Your task to perform on an android device: Open calendar and show me the second week of next month Image 0: 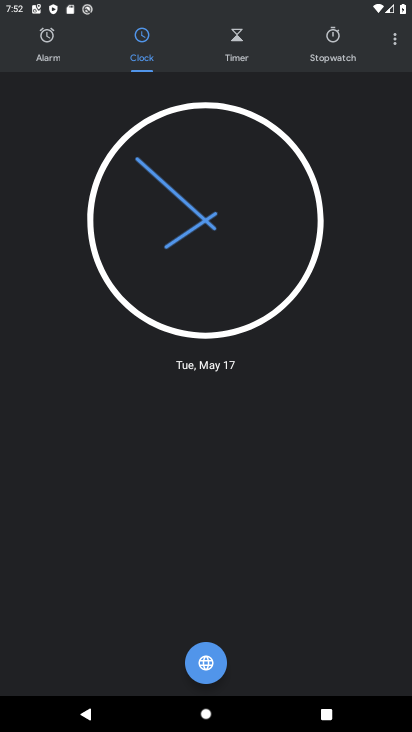
Step 0: press home button
Your task to perform on an android device: Open calendar and show me the second week of next month Image 1: 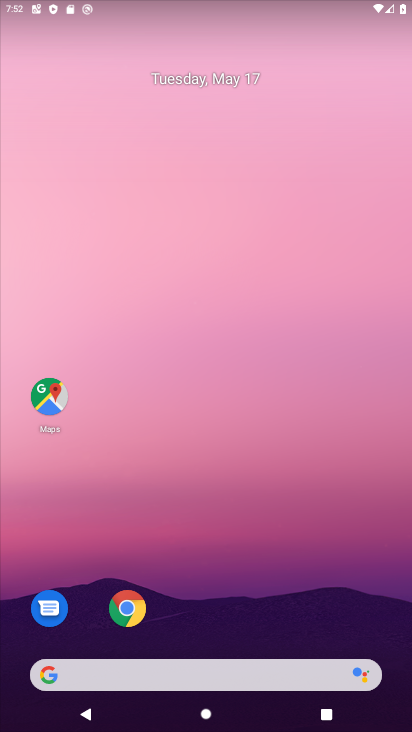
Step 1: click (200, 75)
Your task to perform on an android device: Open calendar and show me the second week of next month Image 2: 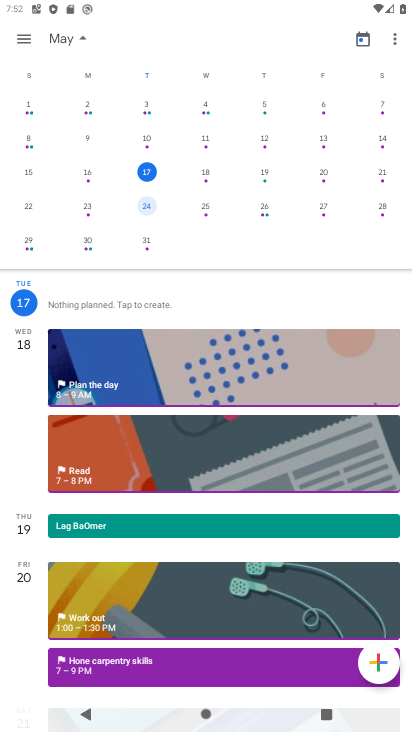
Step 2: drag from (388, 258) to (7, 216)
Your task to perform on an android device: Open calendar and show me the second week of next month Image 3: 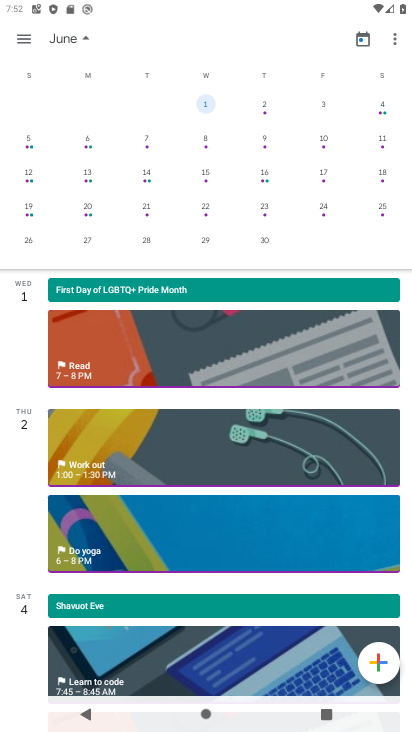
Step 3: click (259, 100)
Your task to perform on an android device: Open calendar and show me the second week of next month Image 4: 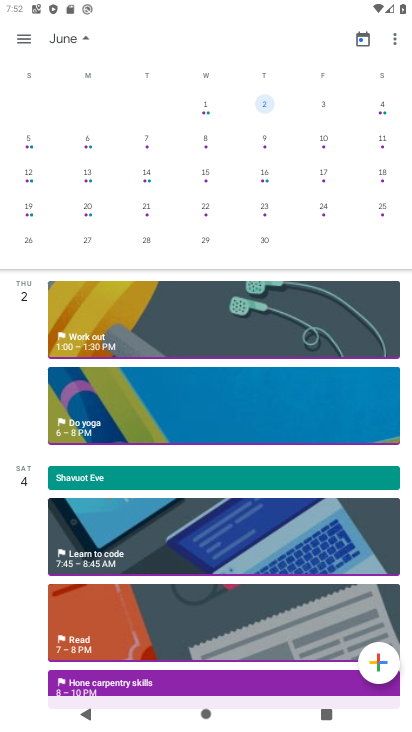
Step 4: task complete